Your task to perform on an android device: Go to eBay Image 0: 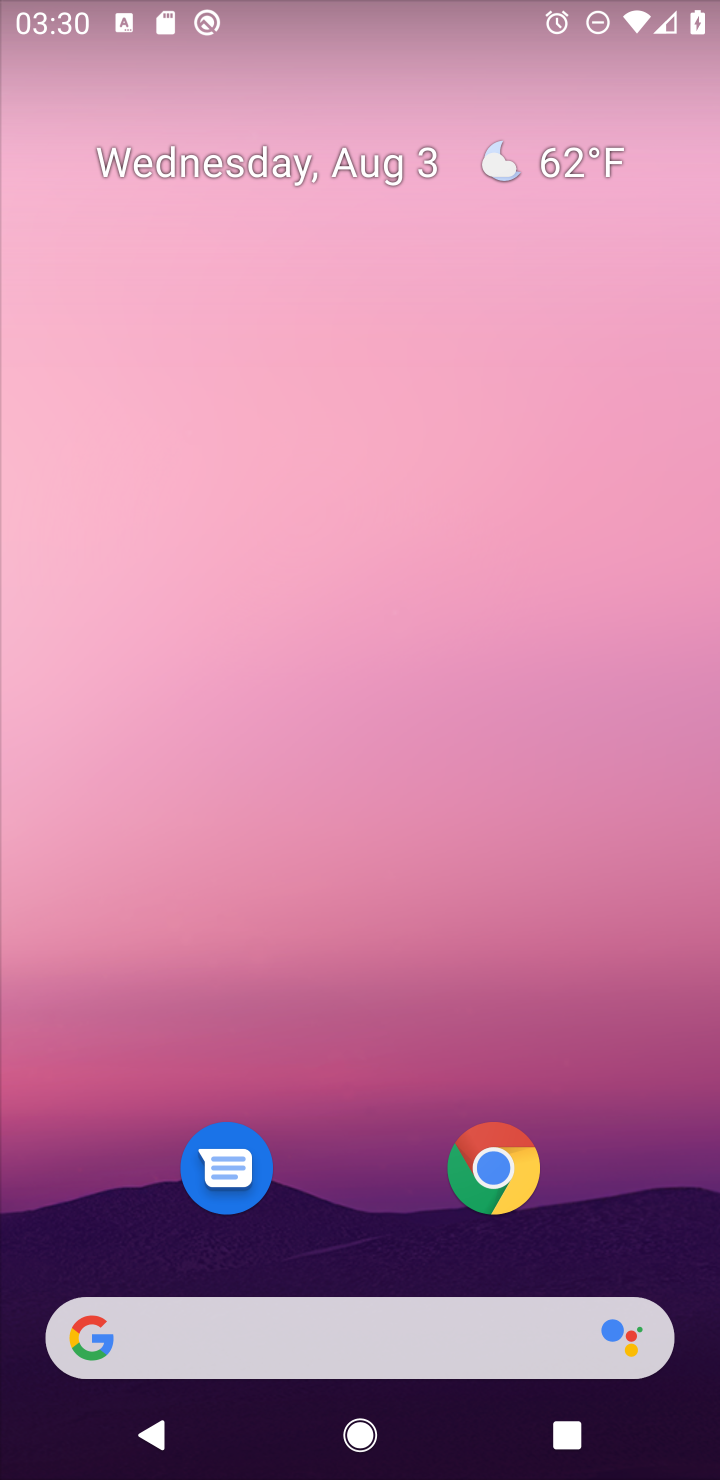
Step 0: click (498, 1173)
Your task to perform on an android device: Go to eBay Image 1: 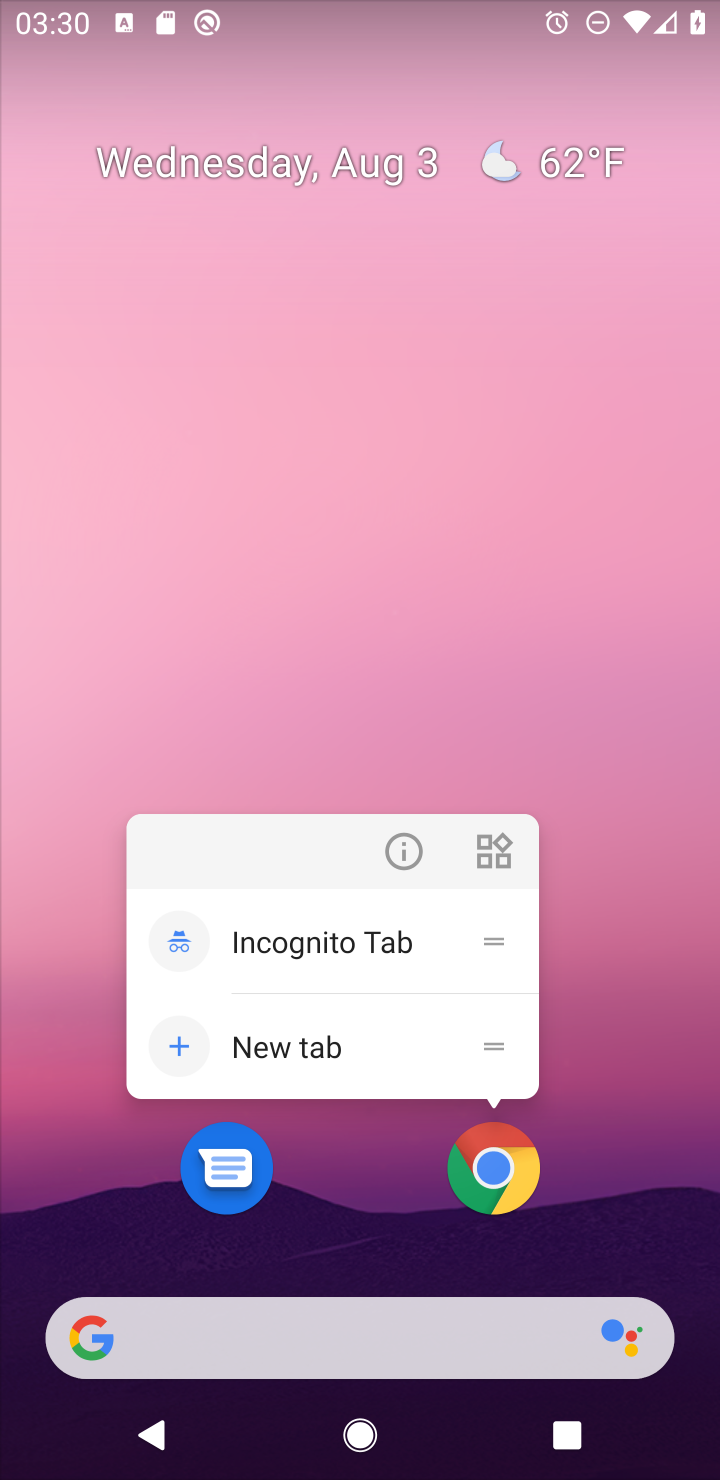
Step 1: click (500, 1171)
Your task to perform on an android device: Go to eBay Image 2: 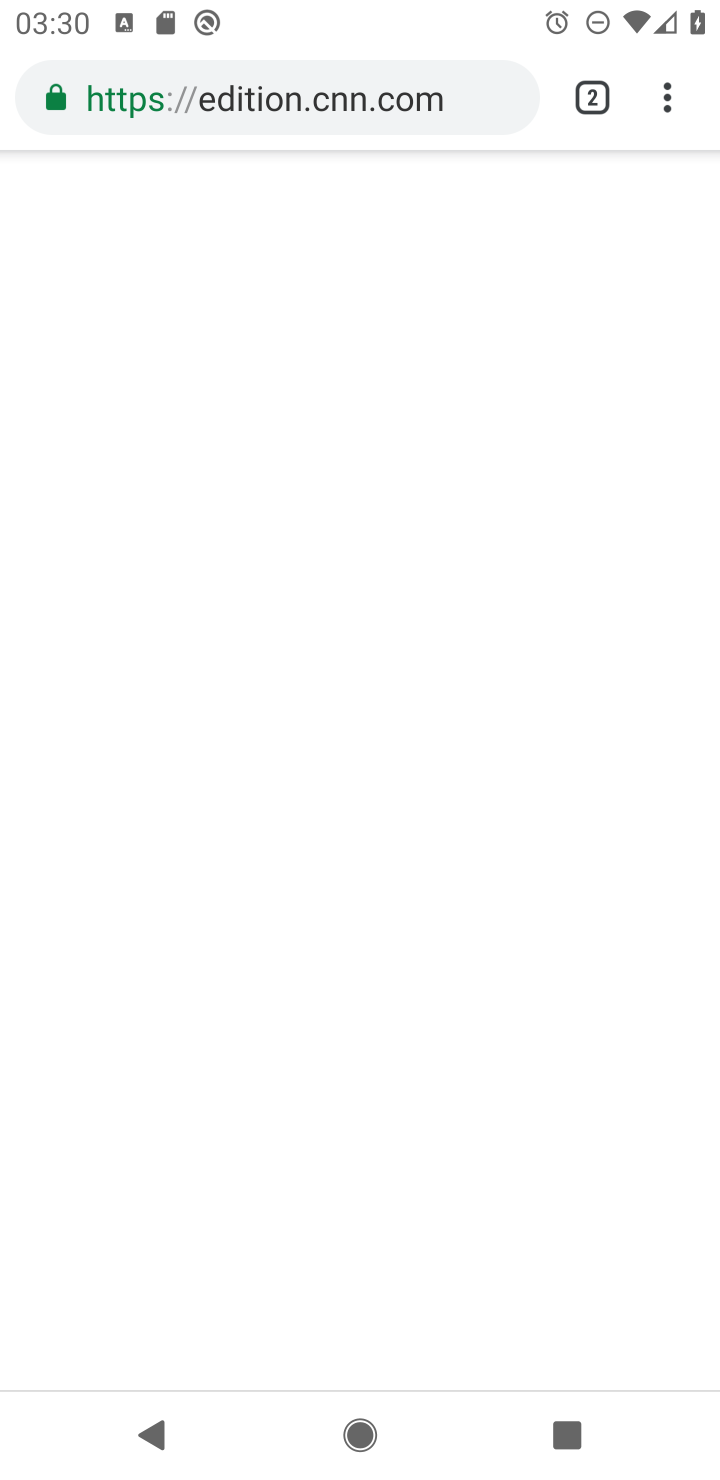
Step 2: click (485, 96)
Your task to perform on an android device: Go to eBay Image 3: 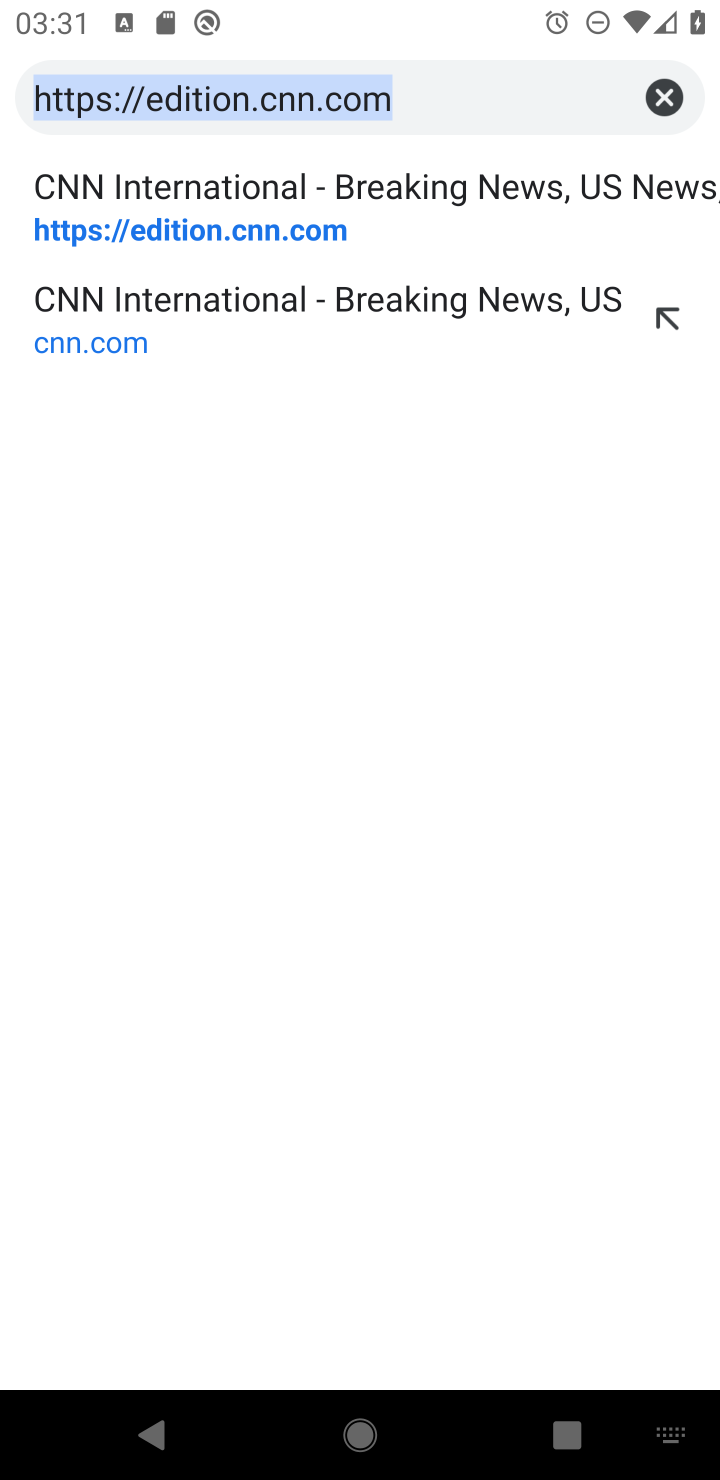
Step 3: click (655, 91)
Your task to perform on an android device: Go to eBay Image 4: 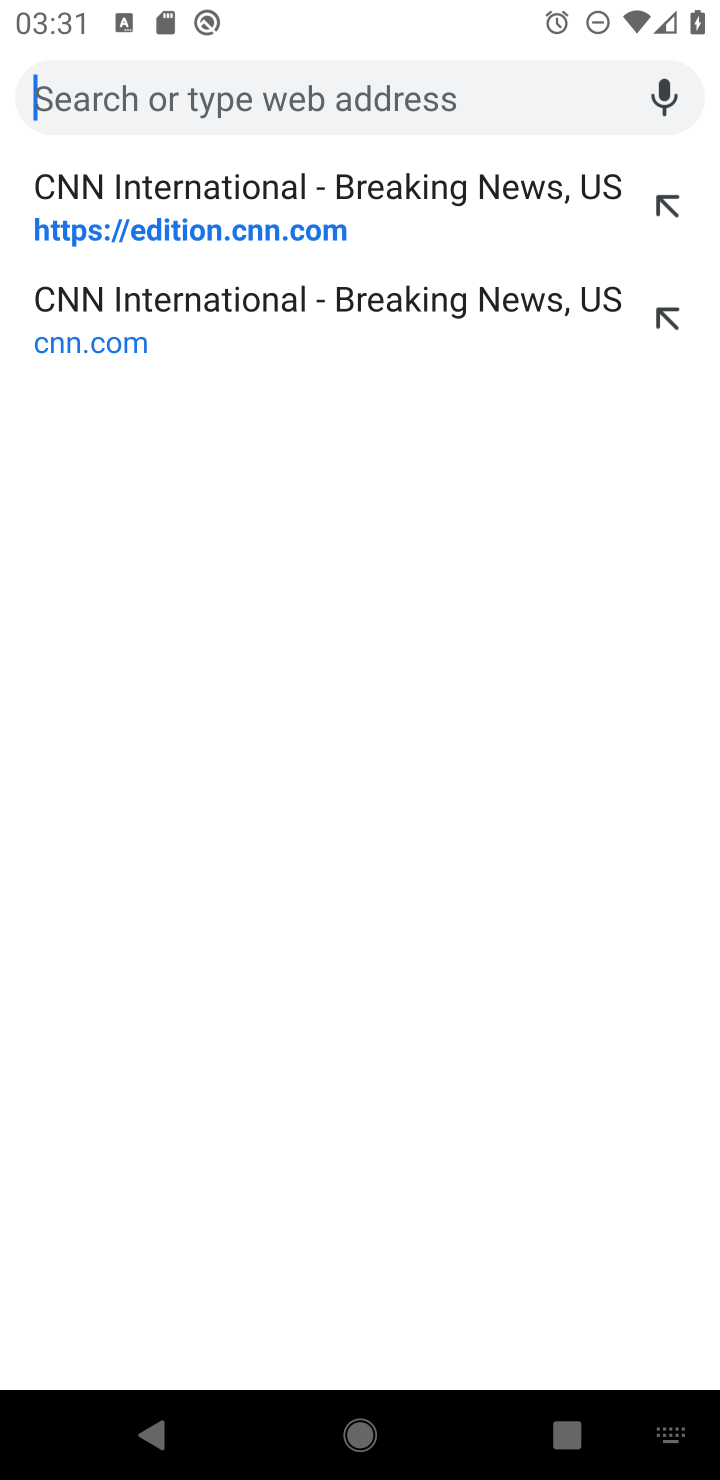
Step 4: type "eBay"
Your task to perform on an android device: Go to eBay Image 5: 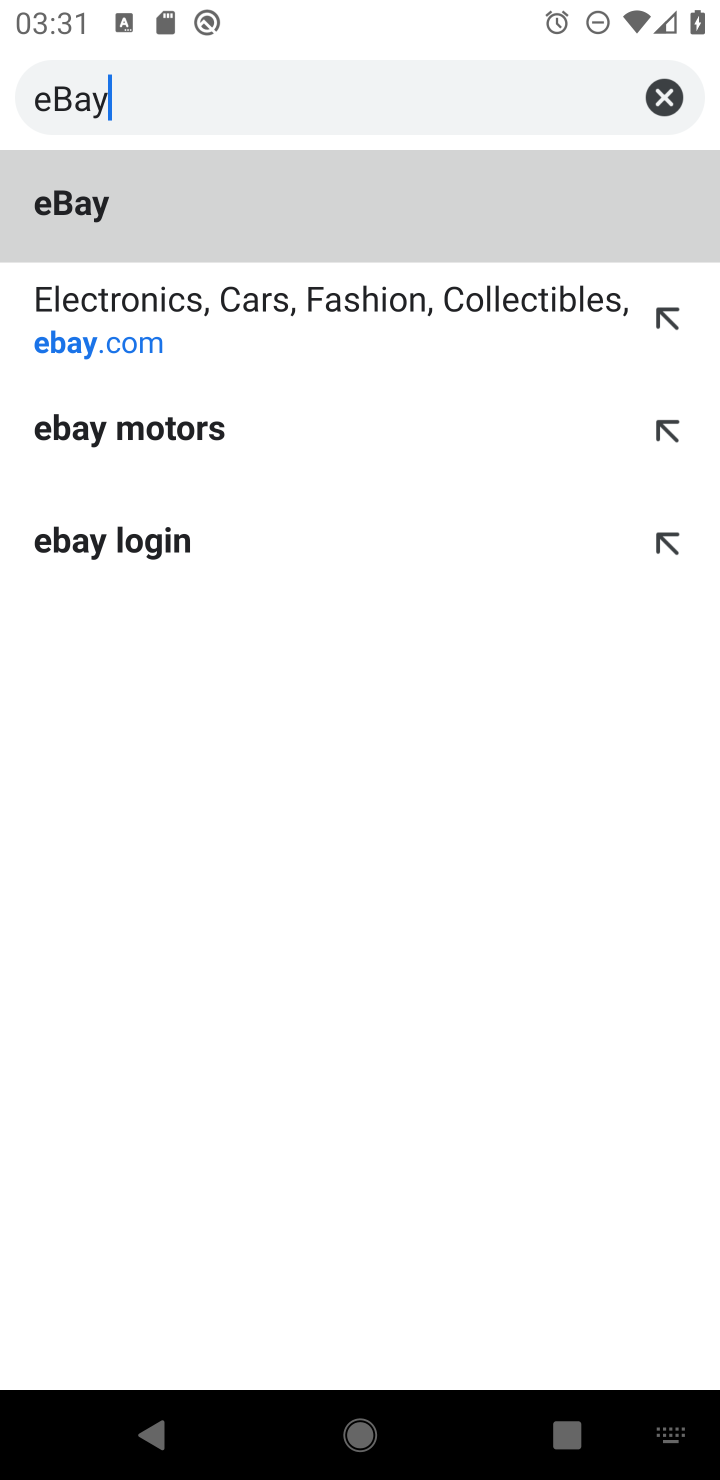
Step 5: click (94, 204)
Your task to perform on an android device: Go to eBay Image 6: 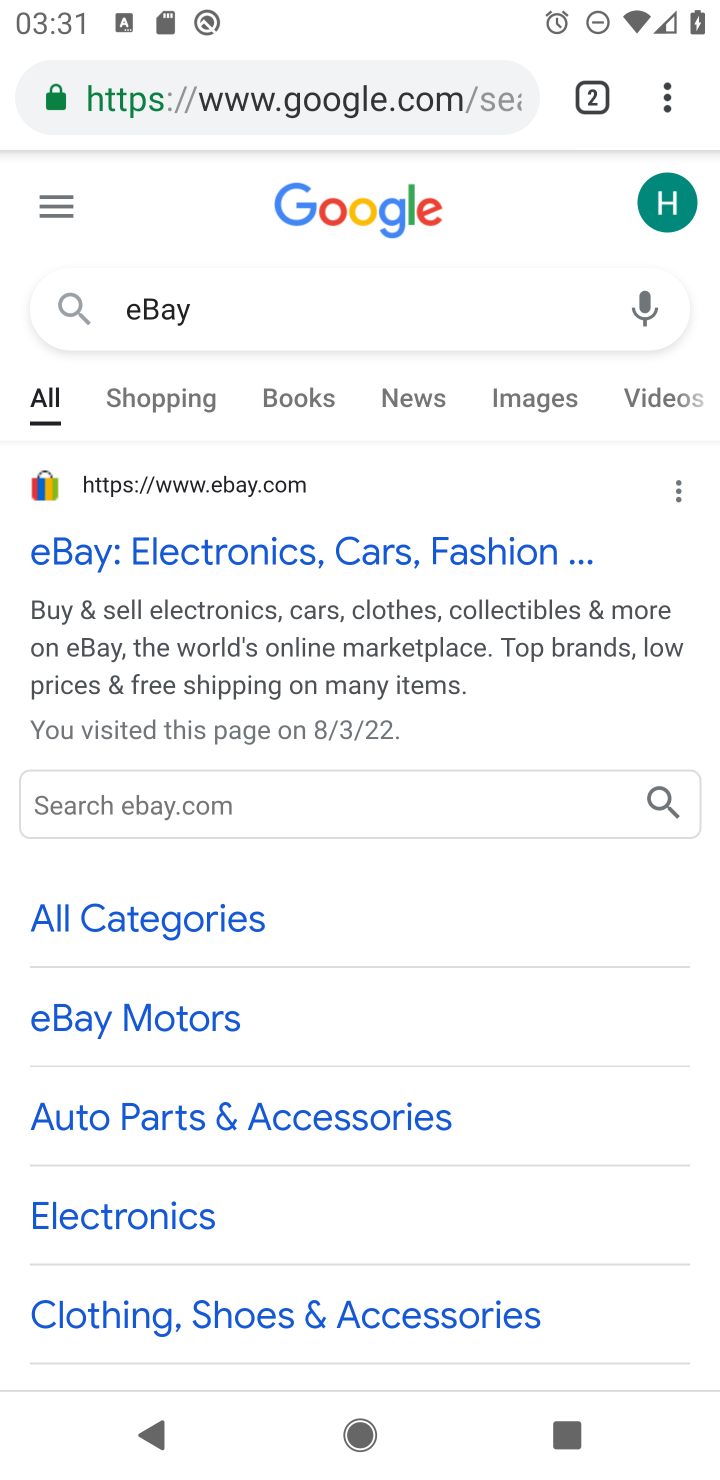
Step 6: click (197, 548)
Your task to perform on an android device: Go to eBay Image 7: 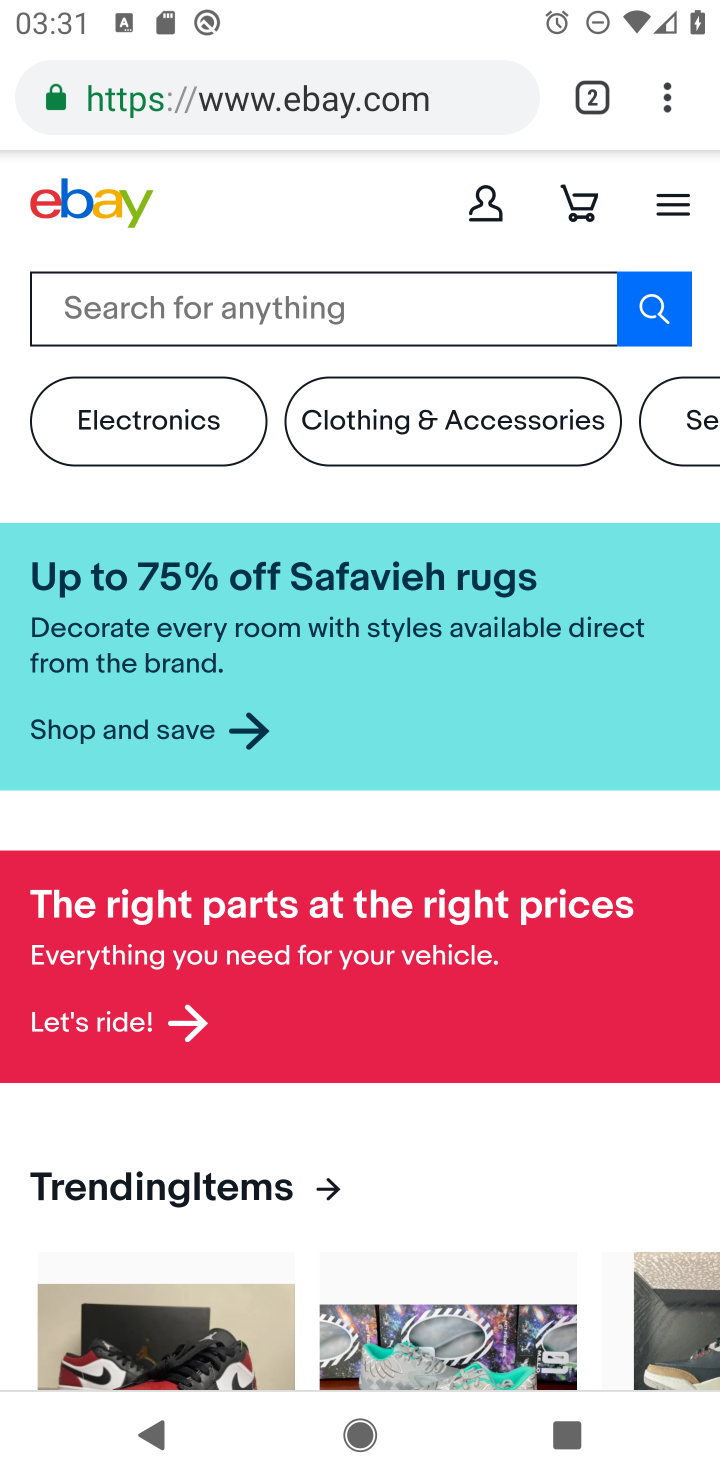
Step 7: drag from (439, 828) to (425, 215)
Your task to perform on an android device: Go to eBay Image 8: 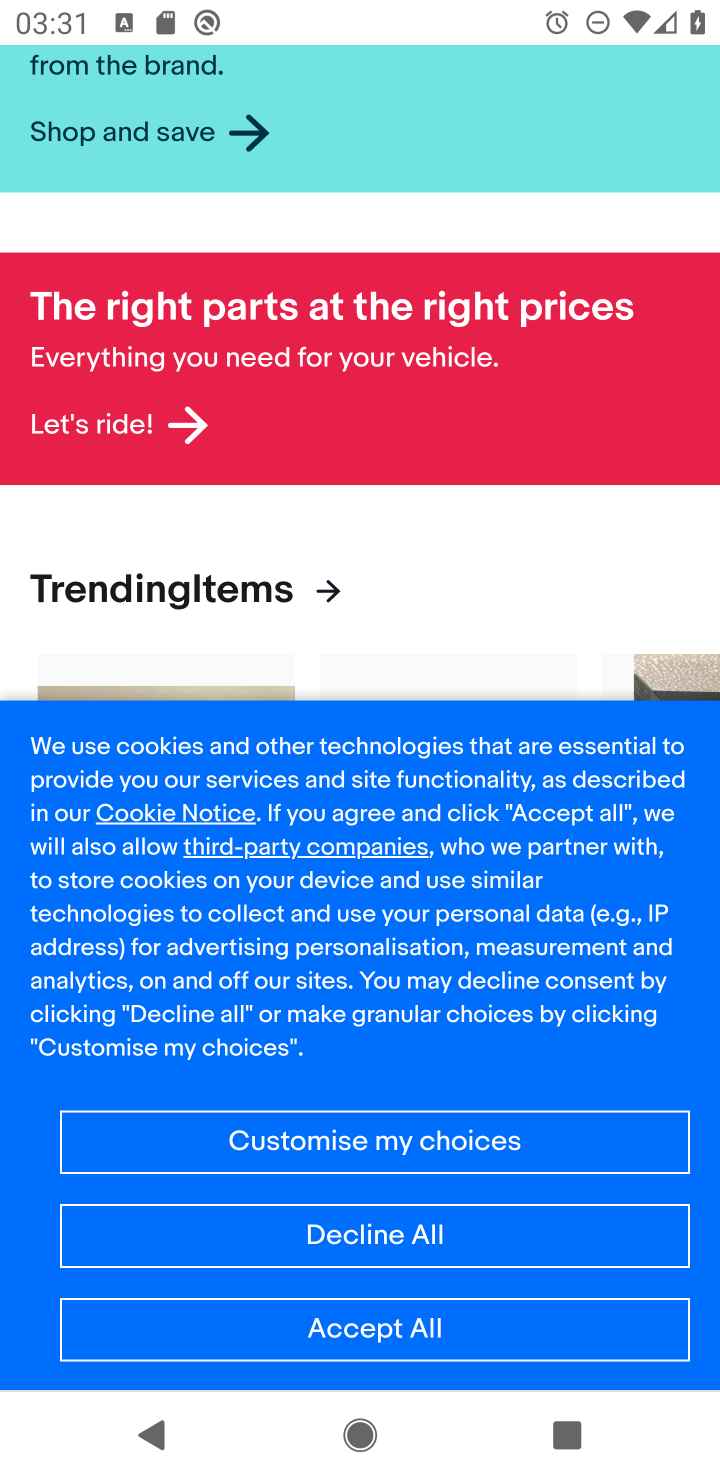
Step 8: drag from (566, 1159) to (503, 629)
Your task to perform on an android device: Go to eBay Image 9: 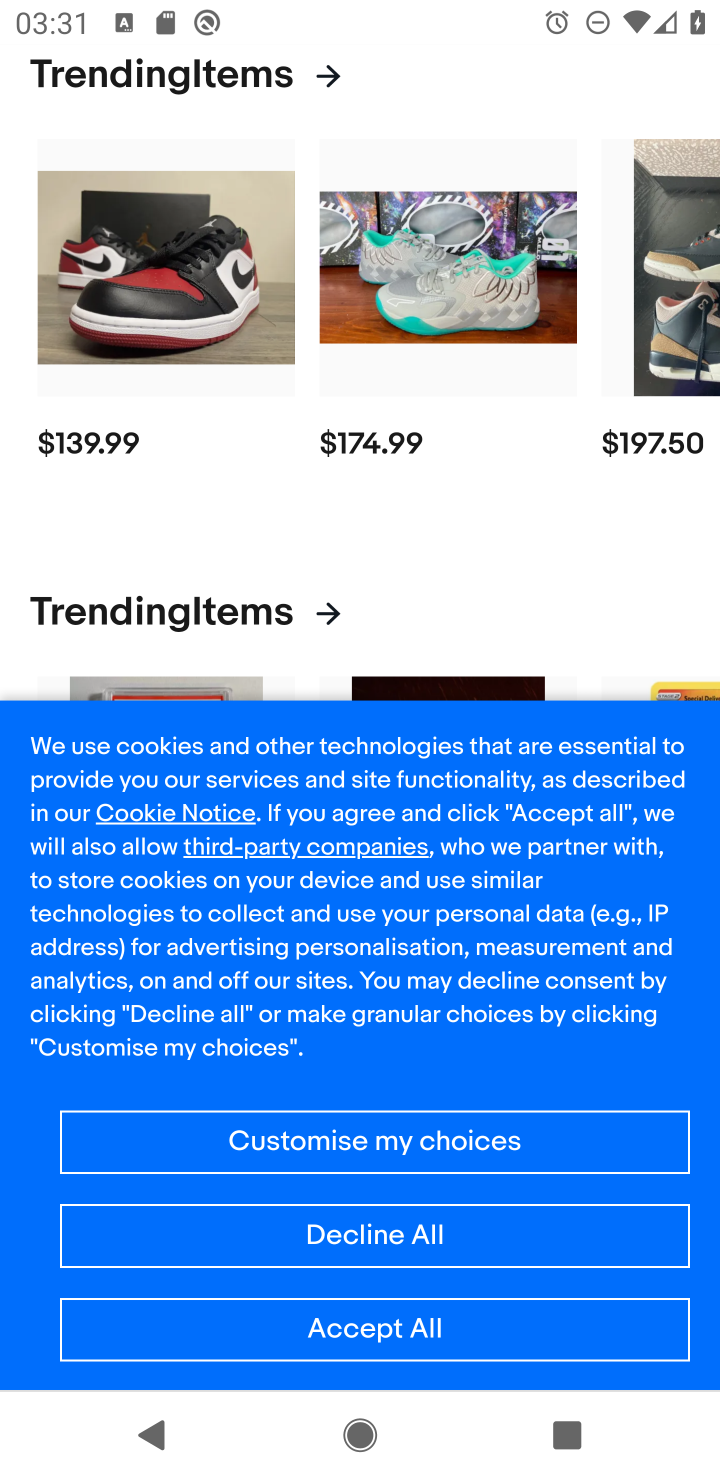
Step 9: click (355, 1335)
Your task to perform on an android device: Go to eBay Image 10: 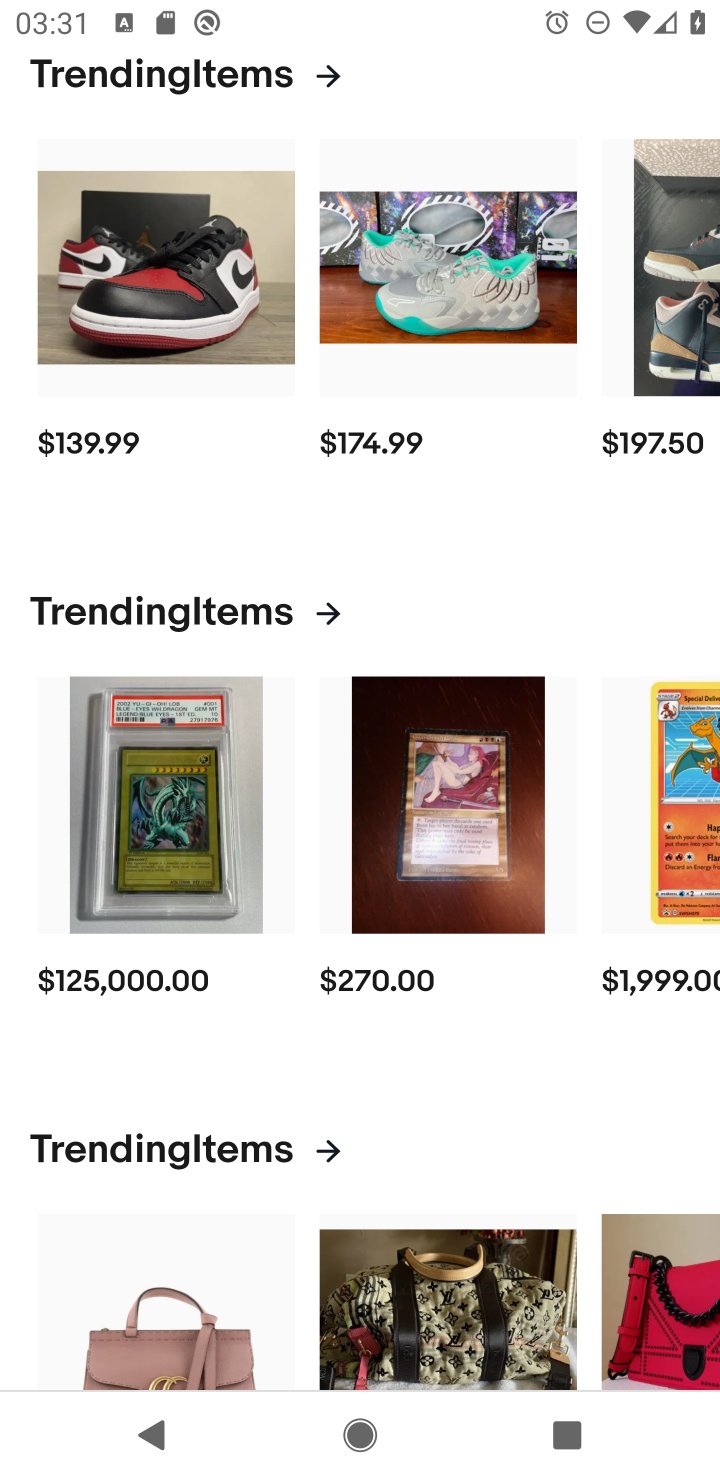
Step 10: task complete